Your task to perform on an android device: Open accessibility settings Image 0: 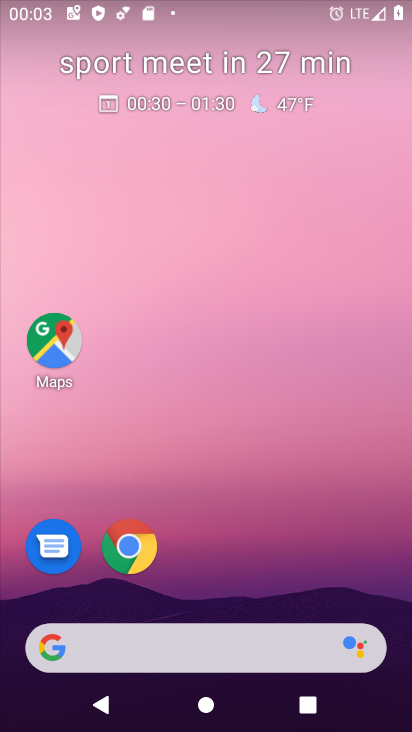
Step 0: drag from (334, 595) to (343, 63)
Your task to perform on an android device: Open accessibility settings Image 1: 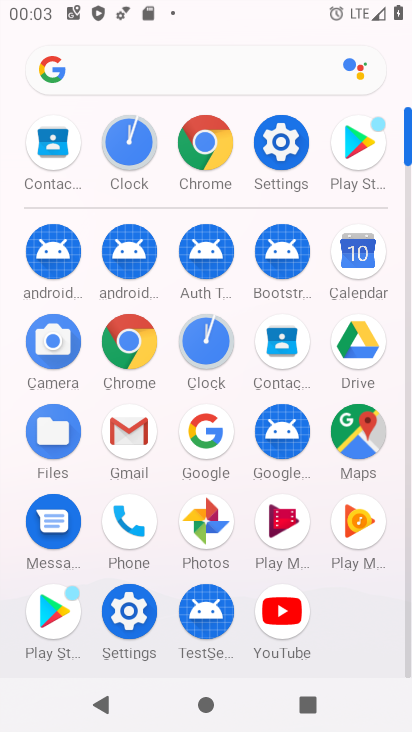
Step 1: click (281, 150)
Your task to perform on an android device: Open accessibility settings Image 2: 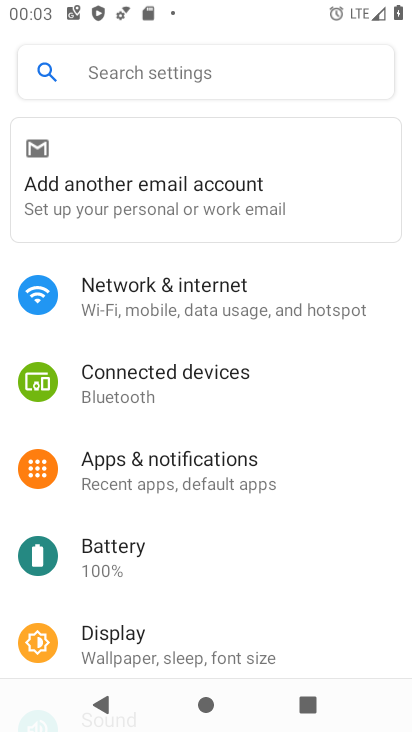
Step 2: drag from (317, 600) to (301, 234)
Your task to perform on an android device: Open accessibility settings Image 3: 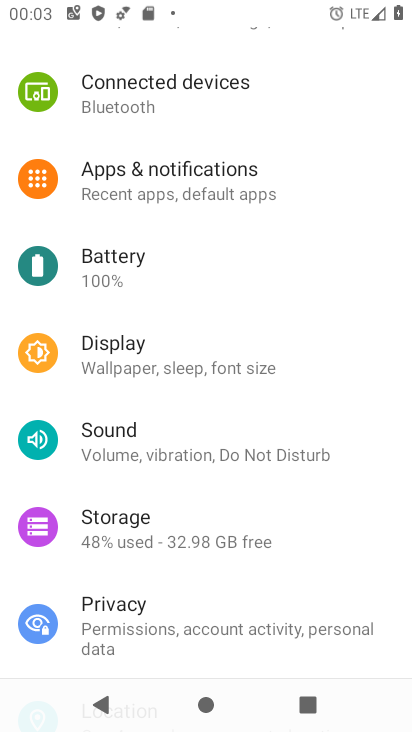
Step 3: drag from (262, 488) to (273, 174)
Your task to perform on an android device: Open accessibility settings Image 4: 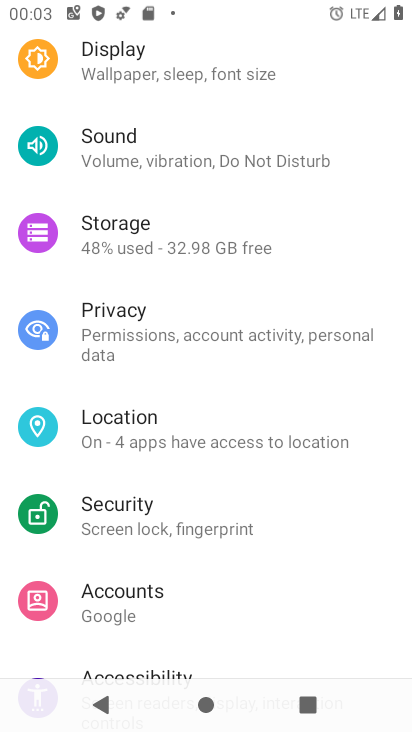
Step 4: drag from (286, 505) to (270, 182)
Your task to perform on an android device: Open accessibility settings Image 5: 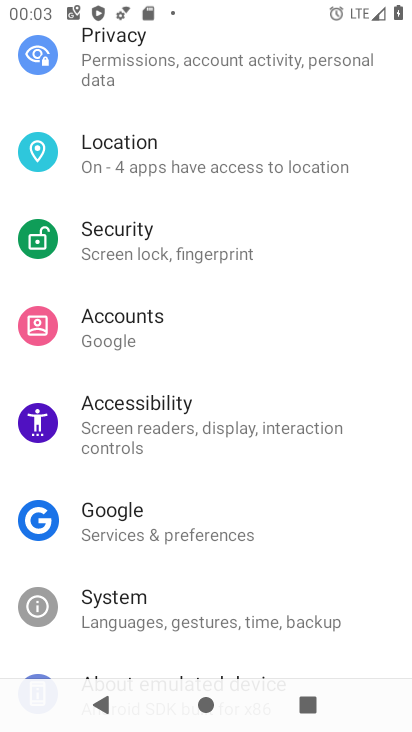
Step 5: click (137, 426)
Your task to perform on an android device: Open accessibility settings Image 6: 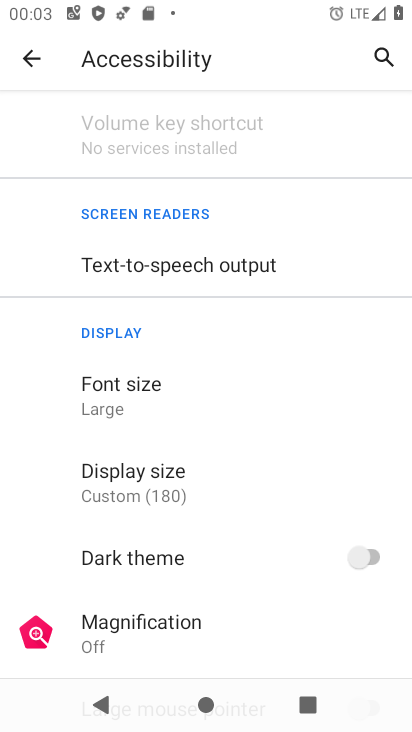
Step 6: task complete